Your task to perform on an android device: check the backup settings in the google photos Image 0: 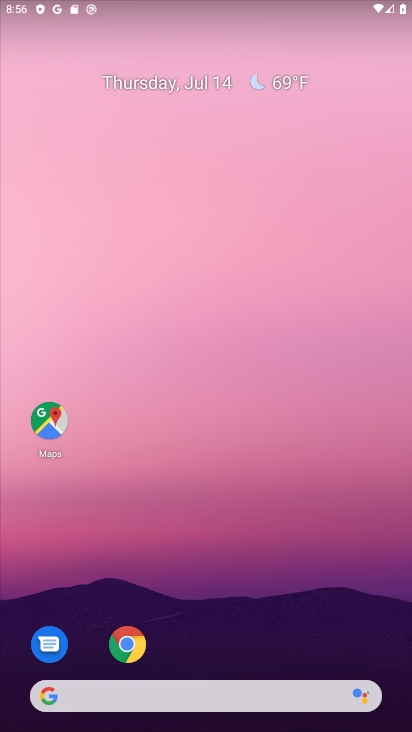
Step 0: drag from (161, 655) to (154, 92)
Your task to perform on an android device: check the backup settings in the google photos Image 1: 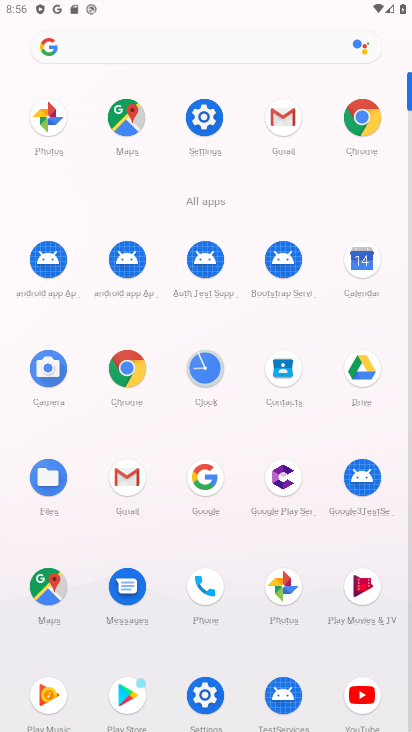
Step 1: click (46, 113)
Your task to perform on an android device: check the backup settings in the google photos Image 2: 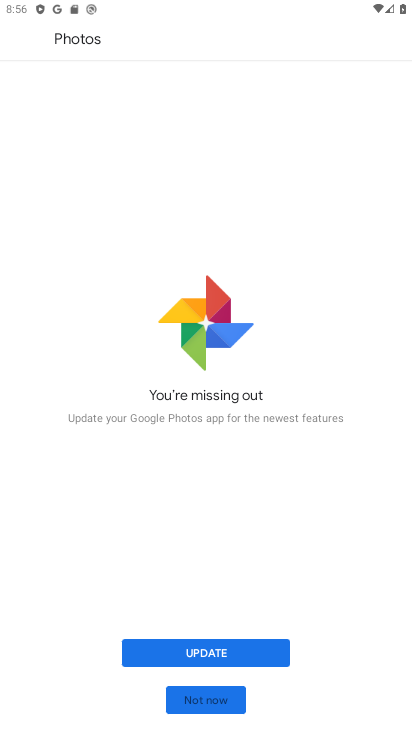
Step 2: click (223, 700)
Your task to perform on an android device: check the backup settings in the google photos Image 3: 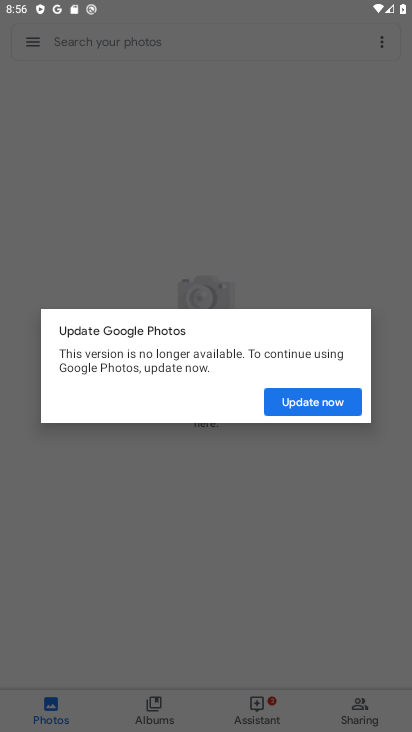
Step 3: click (307, 401)
Your task to perform on an android device: check the backup settings in the google photos Image 4: 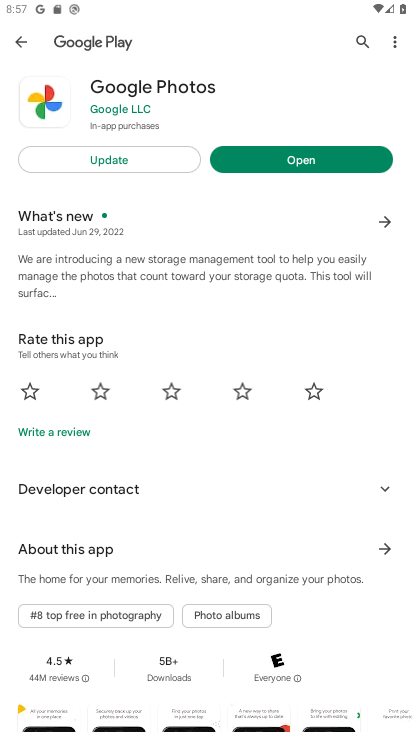
Step 4: click (313, 152)
Your task to perform on an android device: check the backup settings in the google photos Image 5: 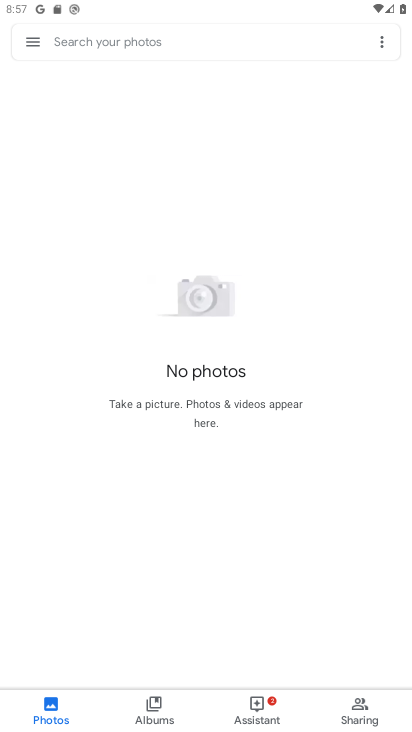
Step 5: click (30, 50)
Your task to perform on an android device: check the backup settings in the google photos Image 6: 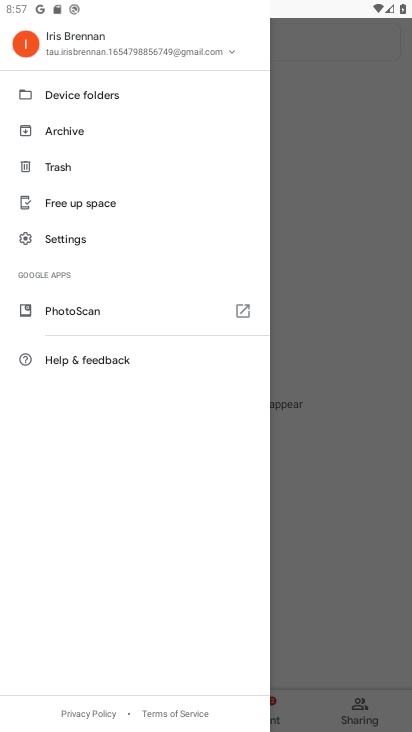
Step 6: click (87, 239)
Your task to perform on an android device: check the backup settings in the google photos Image 7: 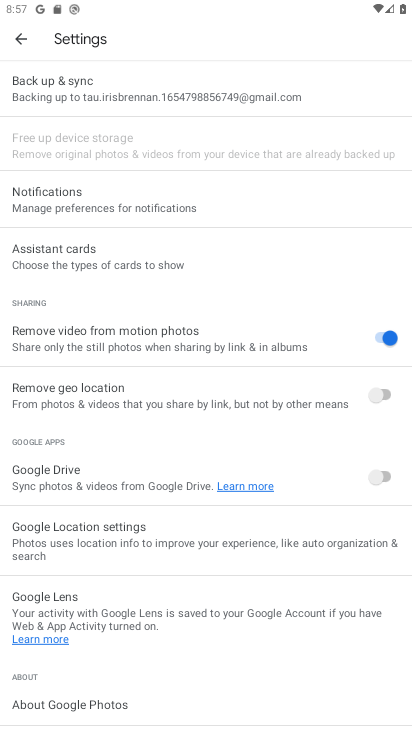
Step 7: click (192, 62)
Your task to perform on an android device: check the backup settings in the google photos Image 8: 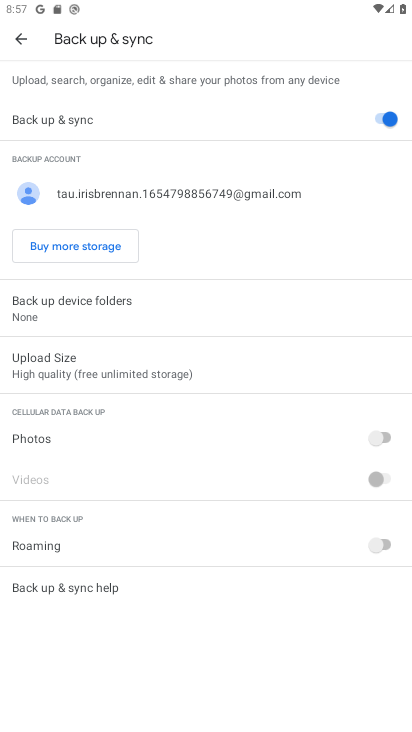
Step 8: task complete